Your task to perform on an android device: turn on wifi Image 0: 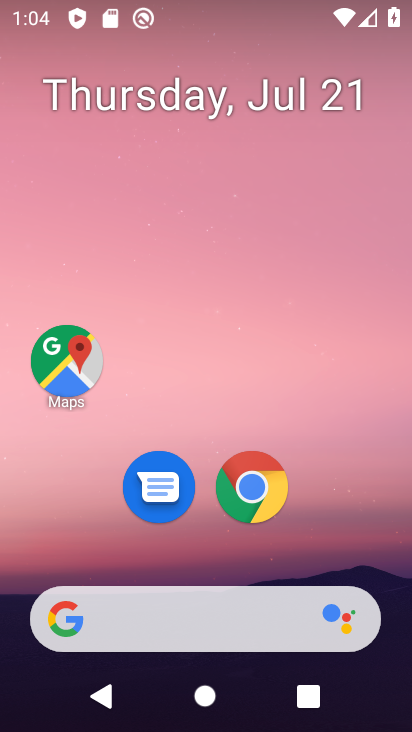
Step 0: drag from (143, 15) to (204, 521)
Your task to perform on an android device: turn on wifi Image 1: 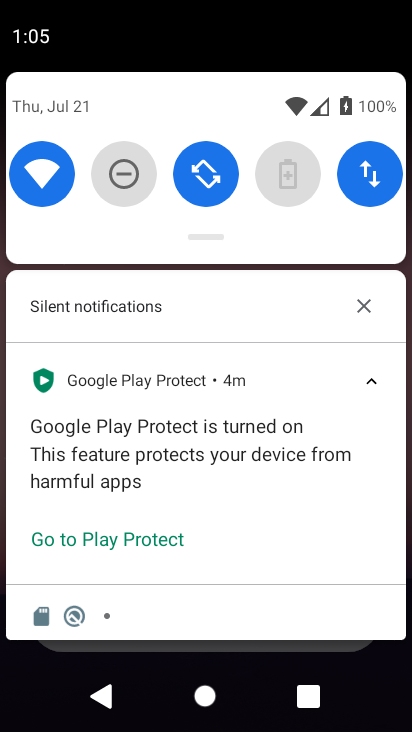
Step 1: task complete